Your task to perform on an android device: Show me productivity apps on the Play Store Image 0: 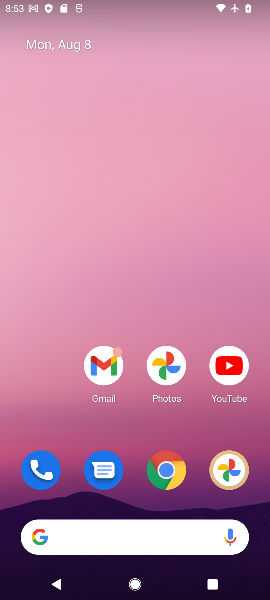
Step 0: drag from (122, 518) to (124, 267)
Your task to perform on an android device: Show me productivity apps on the Play Store Image 1: 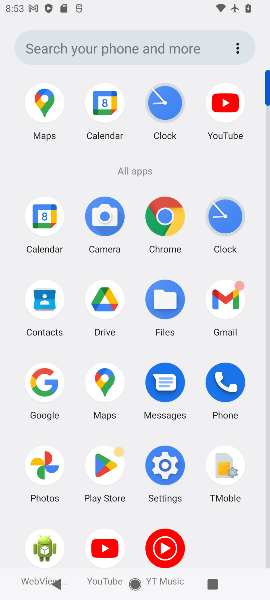
Step 1: click (100, 474)
Your task to perform on an android device: Show me productivity apps on the Play Store Image 2: 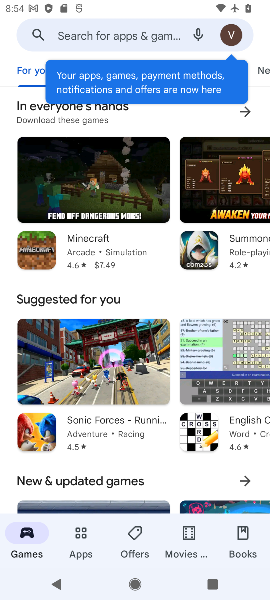
Step 2: click (81, 533)
Your task to perform on an android device: Show me productivity apps on the Play Store Image 3: 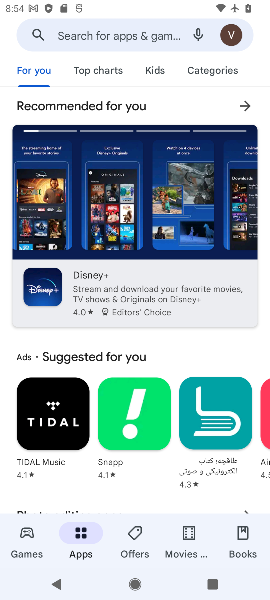
Step 3: task complete